Your task to perform on an android device: set an alarm Image 0: 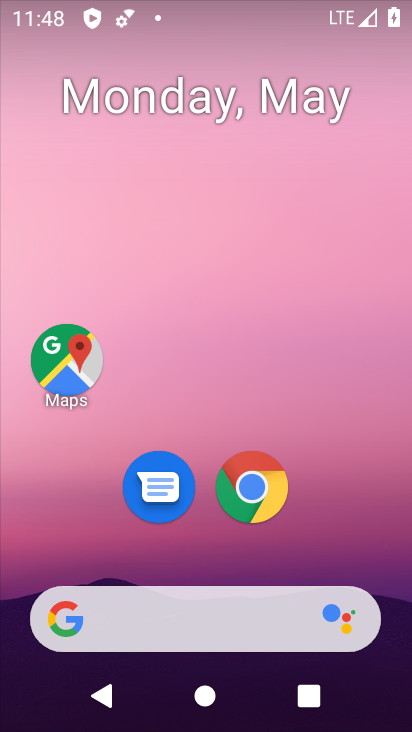
Step 0: drag from (24, 628) to (271, 226)
Your task to perform on an android device: set an alarm Image 1: 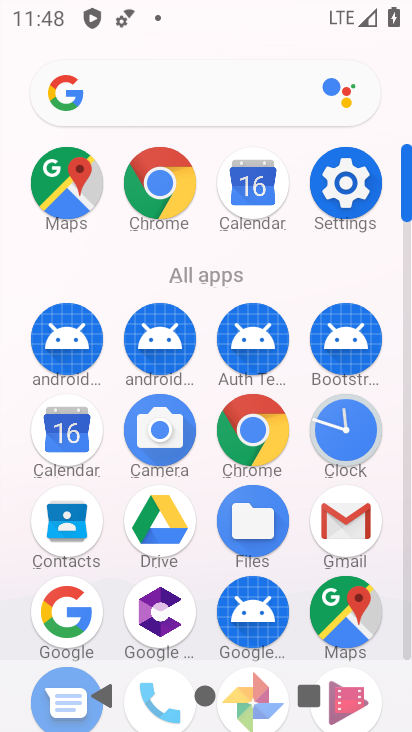
Step 1: click (344, 428)
Your task to perform on an android device: set an alarm Image 2: 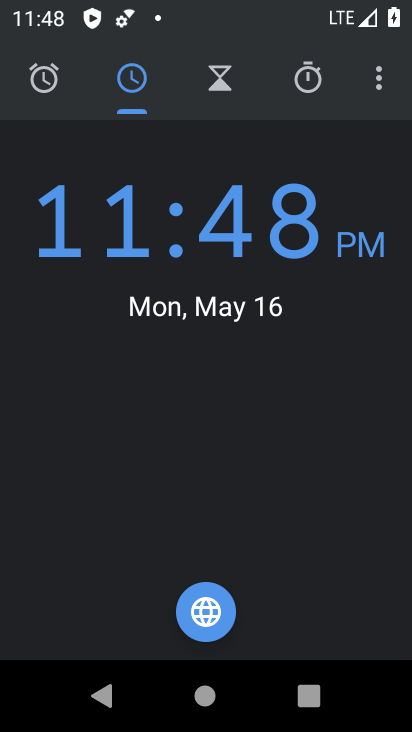
Step 2: click (42, 73)
Your task to perform on an android device: set an alarm Image 3: 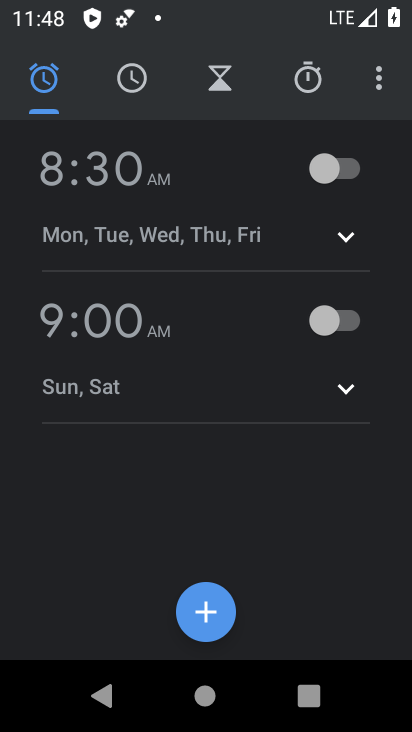
Step 3: click (193, 609)
Your task to perform on an android device: set an alarm Image 4: 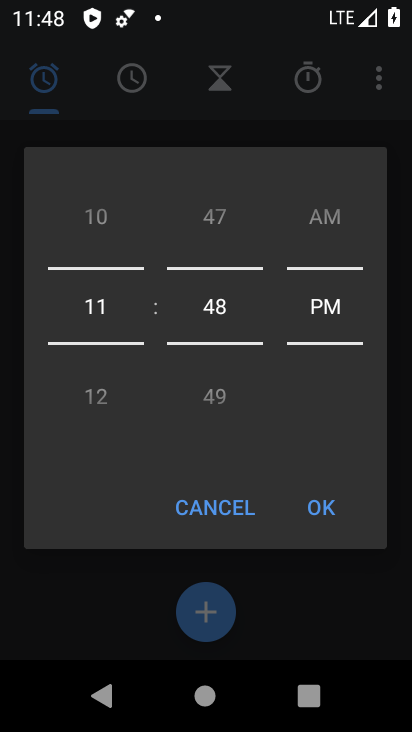
Step 4: click (327, 510)
Your task to perform on an android device: set an alarm Image 5: 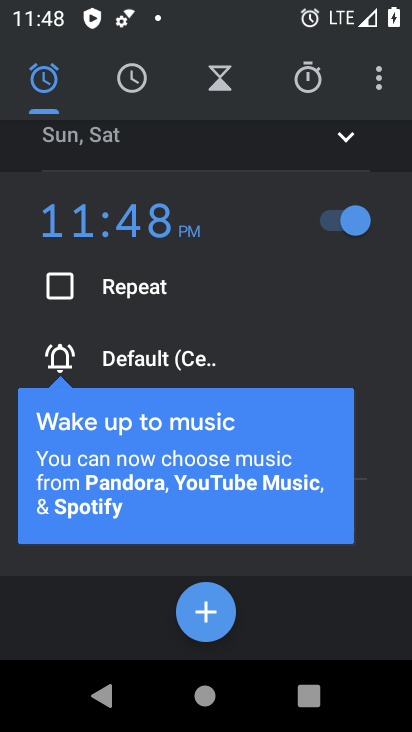
Step 5: task complete